Your task to perform on an android device: Open Youtube and go to "Your channel" Image 0: 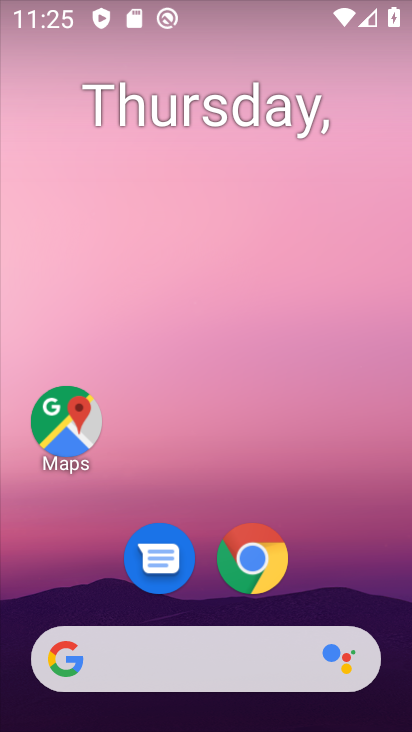
Step 0: drag from (174, 613) to (286, 193)
Your task to perform on an android device: Open Youtube and go to "Your channel" Image 1: 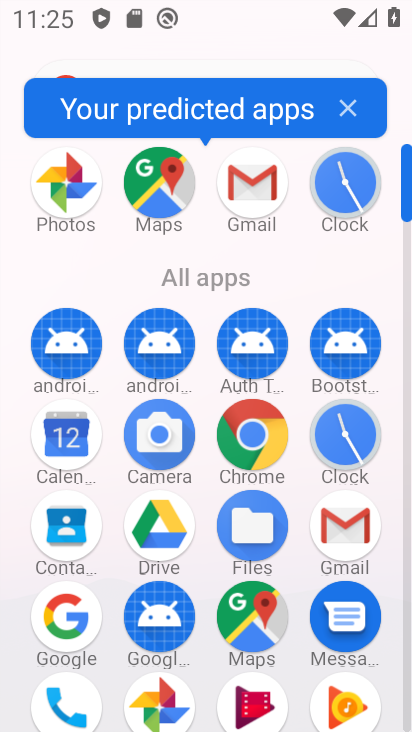
Step 1: drag from (160, 620) to (269, 320)
Your task to perform on an android device: Open Youtube and go to "Your channel" Image 2: 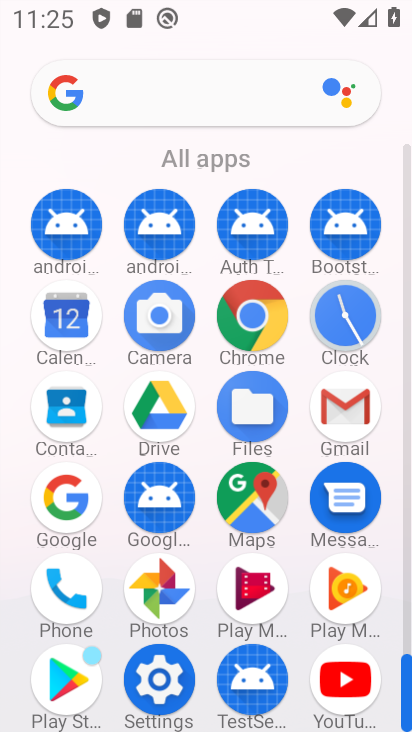
Step 2: click (353, 694)
Your task to perform on an android device: Open Youtube and go to "Your channel" Image 3: 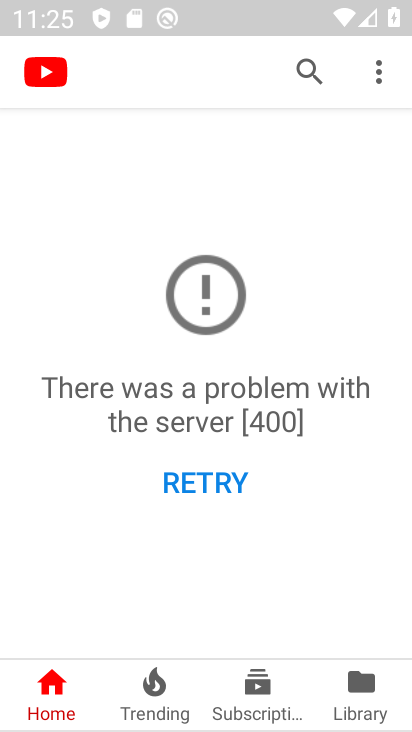
Step 3: click (364, 687)
Your task to perform on an android device: Open Youtube and go to "Your channel" Image 4: 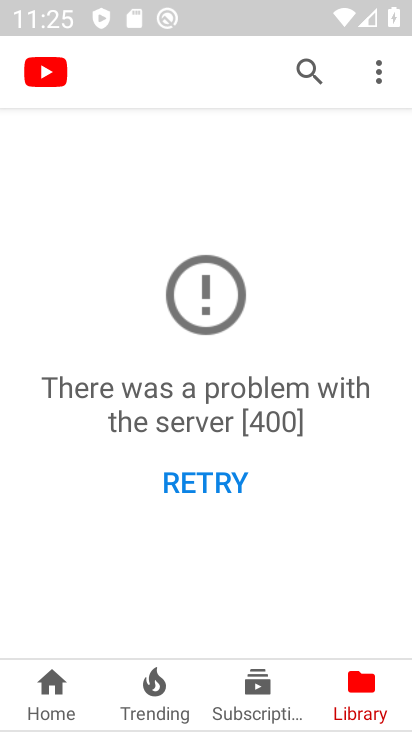
Step 4: click (364, 687)
Your task to perform on an android device: Open Youtube and go to "Your channel" Image 5: 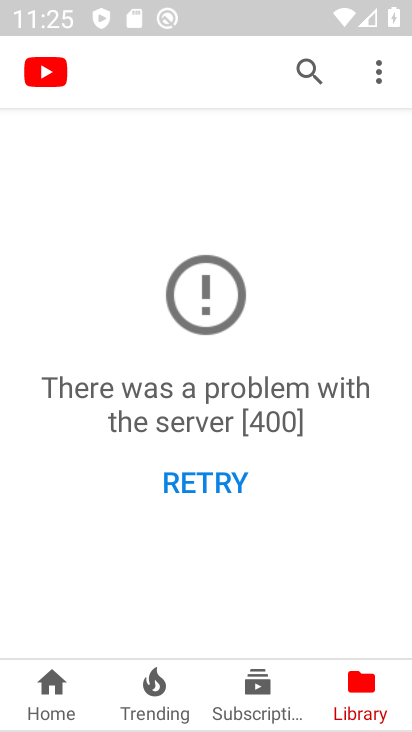
Step 5: task complete